Your task to perform on an android device: open sync settings in chrome Image 0: 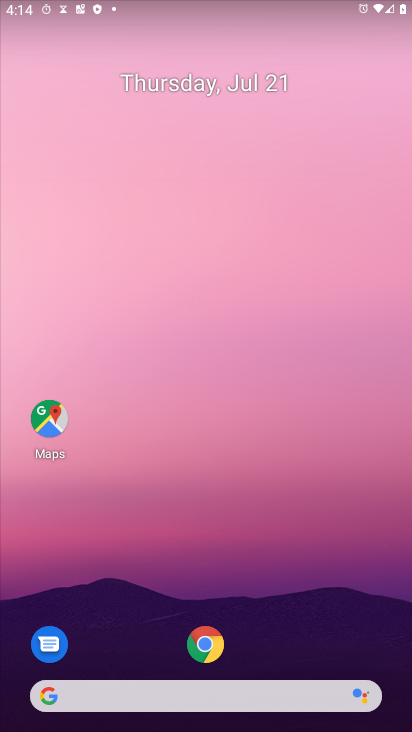
Step 0: press home button
Your task to perform on an android device: open sync settings in chrome Image 1: 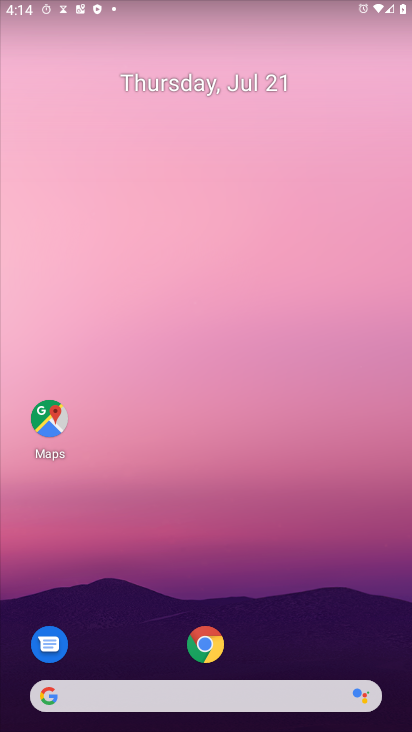
Step 1: drag from (326, 637) to (266, 153)
Your task to perform on an android device: open sync settings in chrome Image 2: 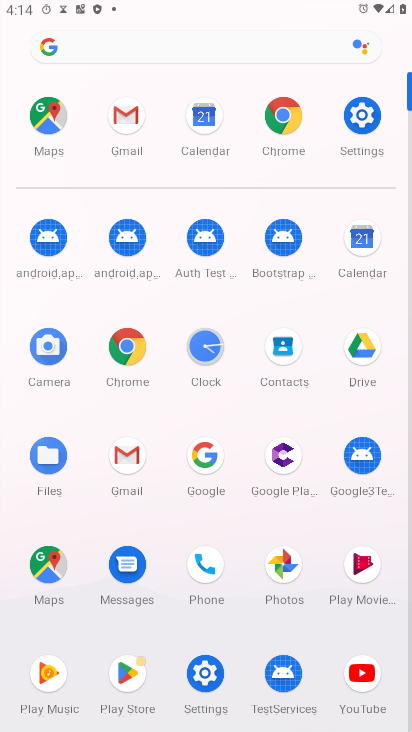
Step 2: click (279, 121)
Your task to perform on an android device: open sync settings in chrome Image 3: 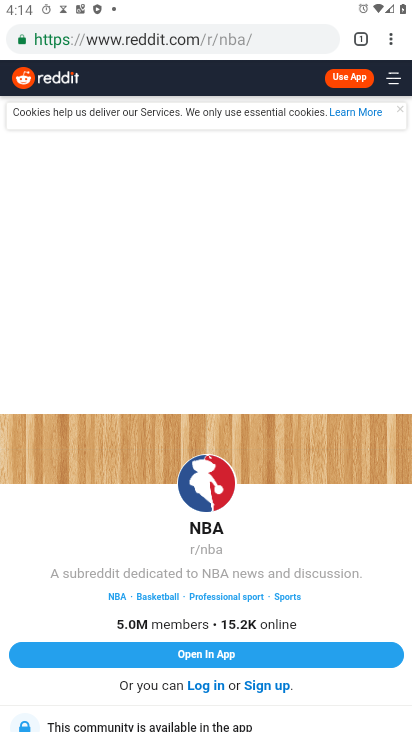
Step 3: drag from (389, 39) to (253, 529)
Your task to perform on an android device: open sync settings in chrome Image 4: 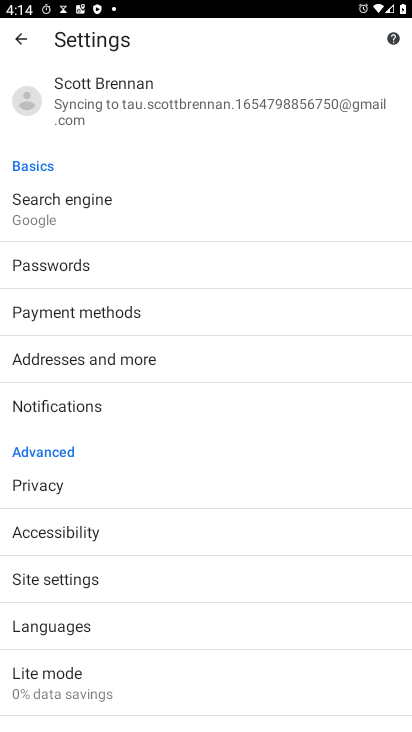
Step 4: click (184, 102)
Your task to perform on an android device: open sync settings in chrome Image 5: 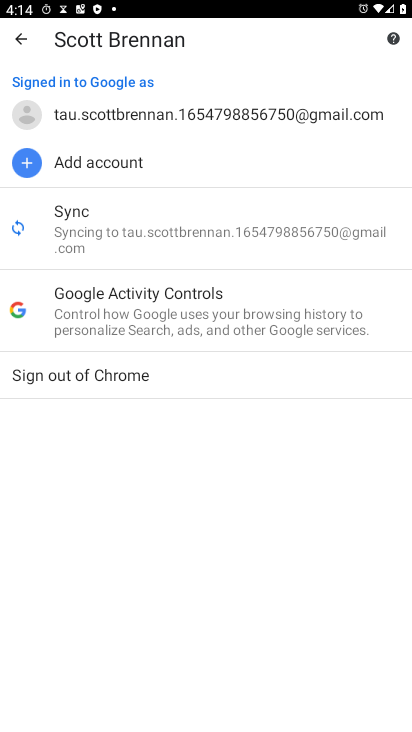
Step 5: click (92, 225)
Your task to perform on an android device: open sync settings in chrome Image 6: 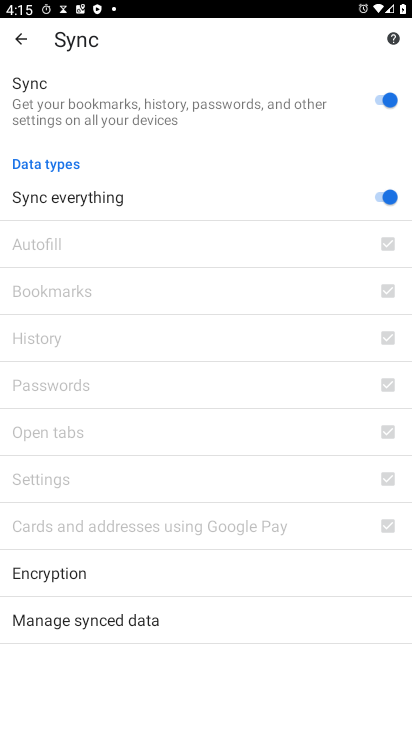
Step 6: task complete